Your task to perform on an android device: set the timer Image 0: 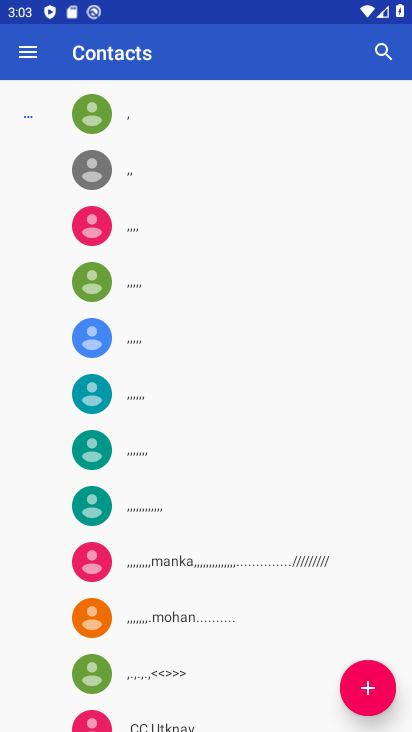
Step 0: press home button
Your task to perform on an android device: set the timer Image 1: 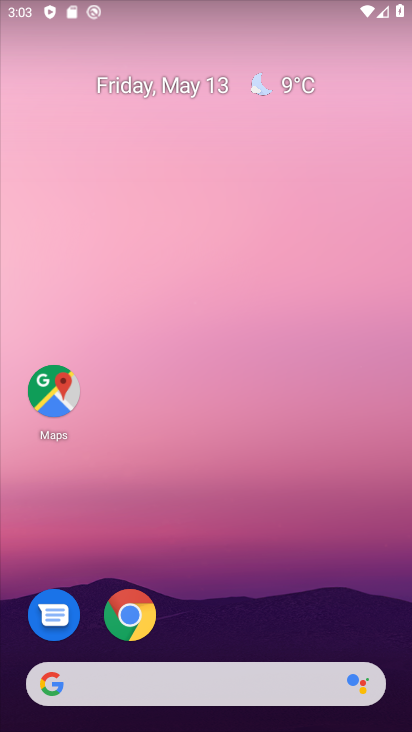
Step 1: drag from (219, 709) to (221, 33)
Your task to perform on an android device: set the timer Image 2: 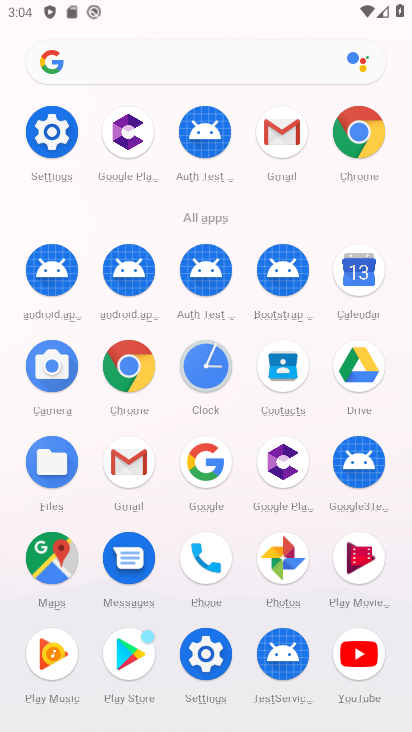
Step 2: click (202, 366)
Your task to perform on an android device: set the timer Image 3: 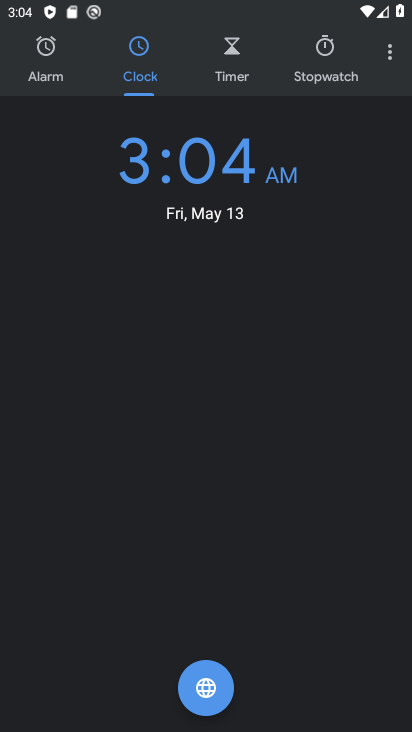
Step 3: click (232, 55)
Your task to perform on an android device: set the timer Image 4: 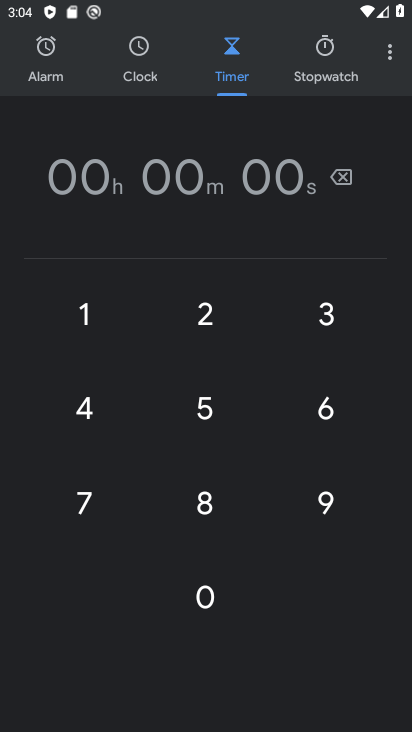
Step 4: click (209, 308)
Your task to perform on an android device: set the timer Image 5: 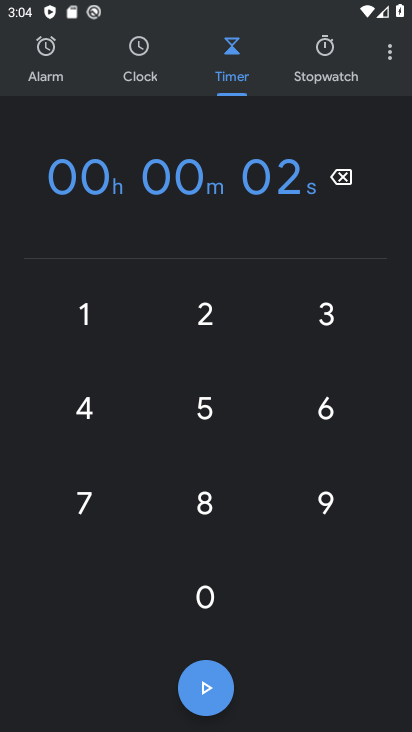
Step 5: click (203, 507)
Your task to perform on an android device: set the timer Image 6: 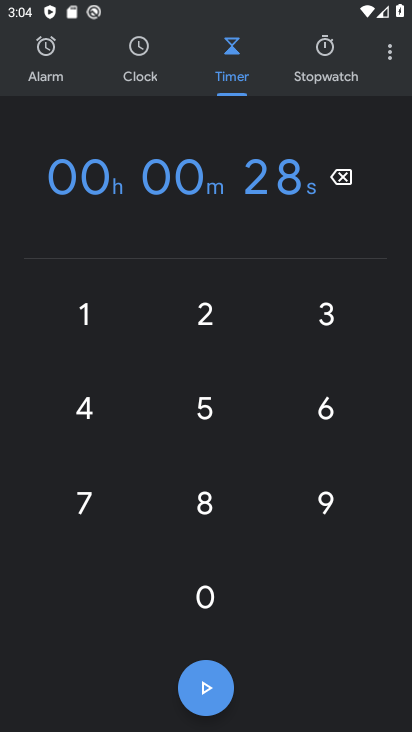
Step 6: click (202, 400)
Your task to perform on an android device: set the timer Image 7: 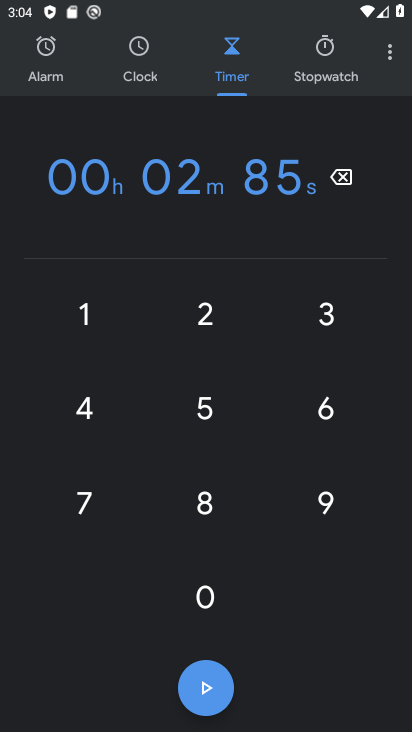
Step 7: click (91, 403)
Your task to perform on an android device: set the timer Image 8: 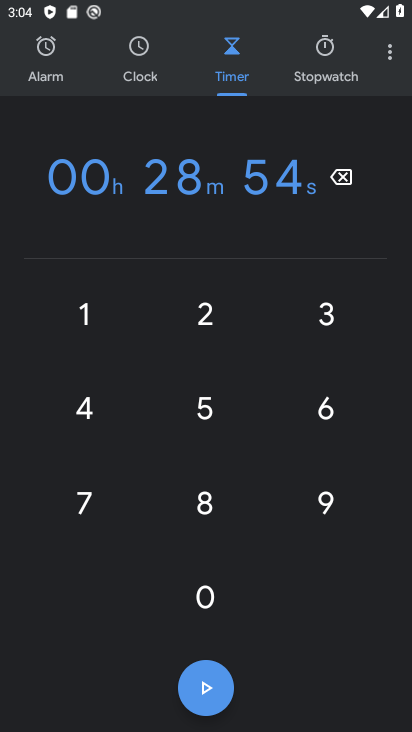
Step 8: click (329, 506)
Your task to perform on an android device: set the timer Image 9: 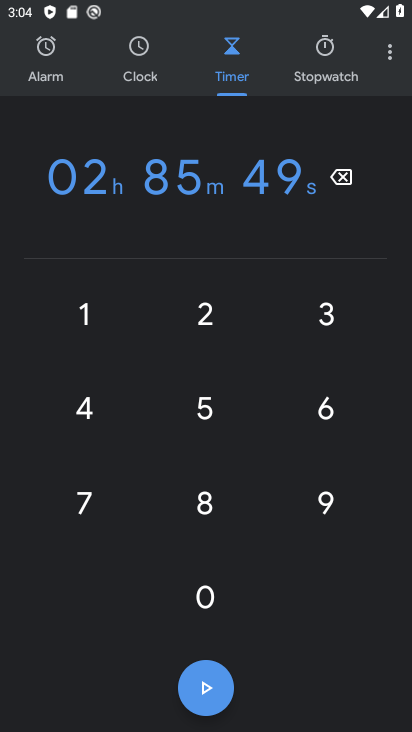
Step 9: click (210, 691)
Your task to perform on an android device: set the timer Image 10: 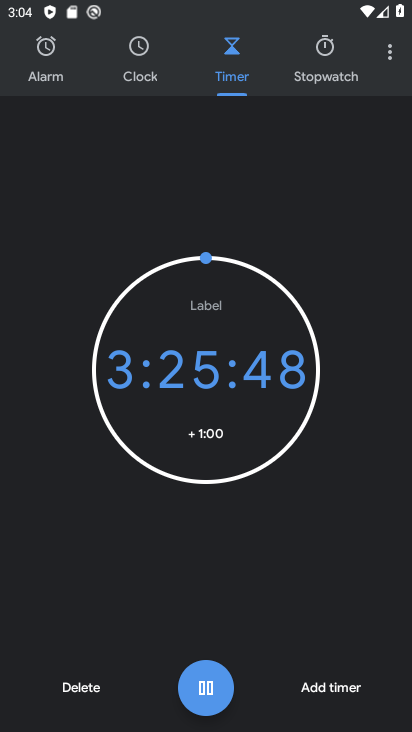
Step 10: task complete